Your task to perform on an android device: Open Google Maps Image 0: 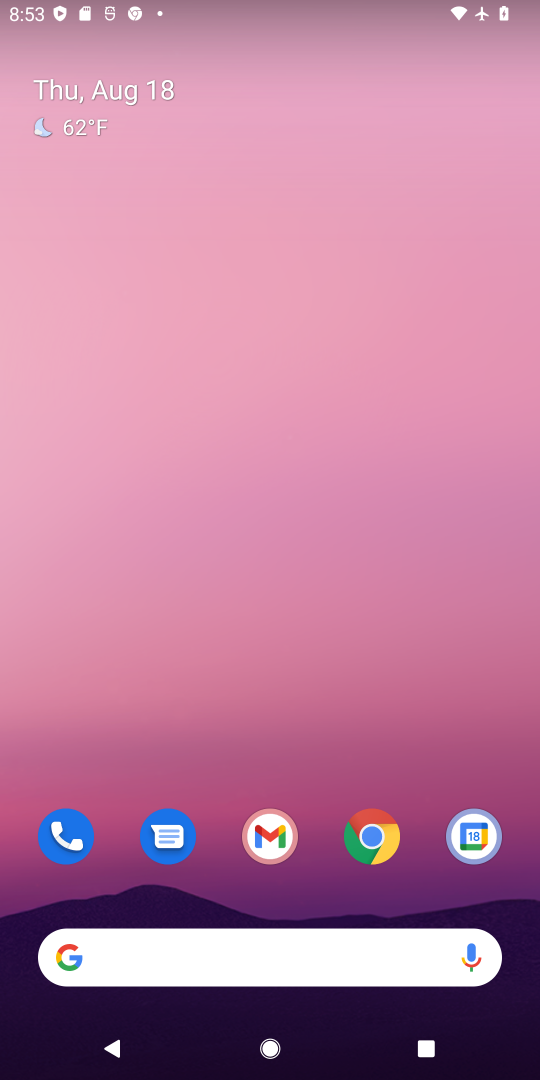
Step 0: drag from (416, 766) to (410, 1)
Your task to perform on an android device: Open Google Maps Image 1: 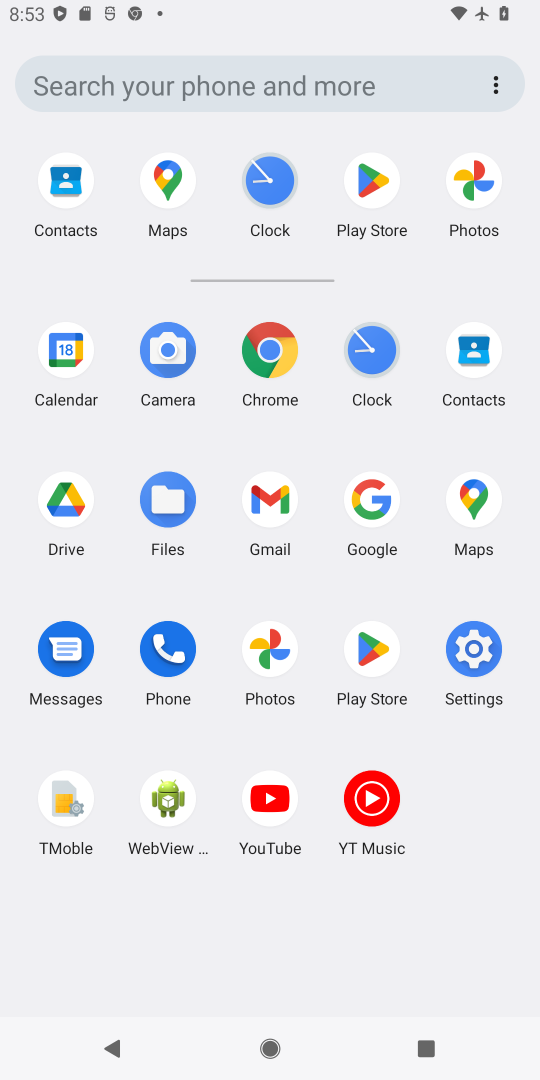
Step 1: click (469, 489)
Your task to perform on an android device: Open Google Maps Image 2: 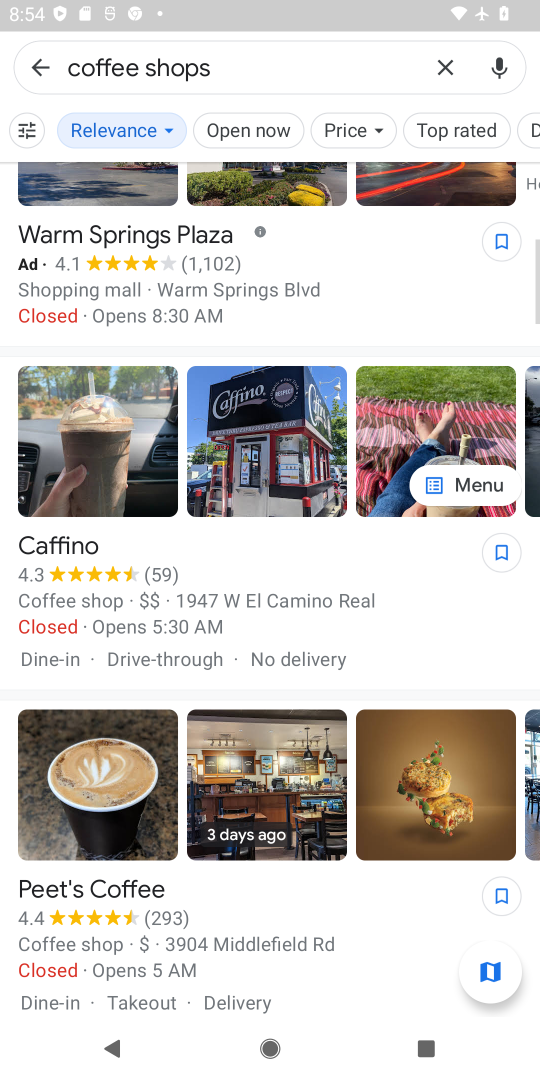
Step 2: task complete